Your task to perform on an android device: Install the Yahoo app Image 0: 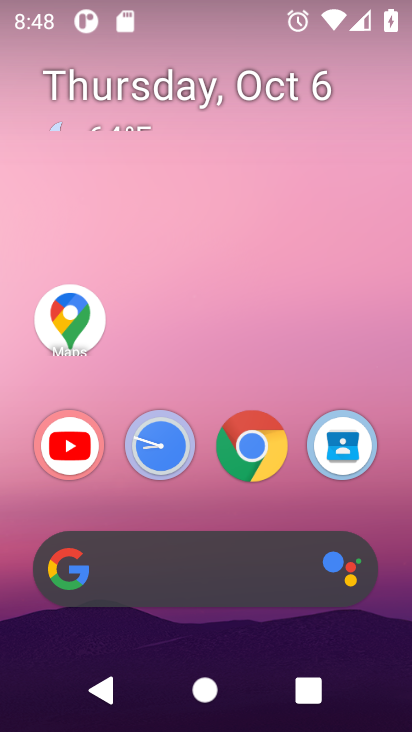
Step 0: drag from (110, 509) to (170, 35)
Your task to perform on an android device: Install the Yahoo app Image 1: 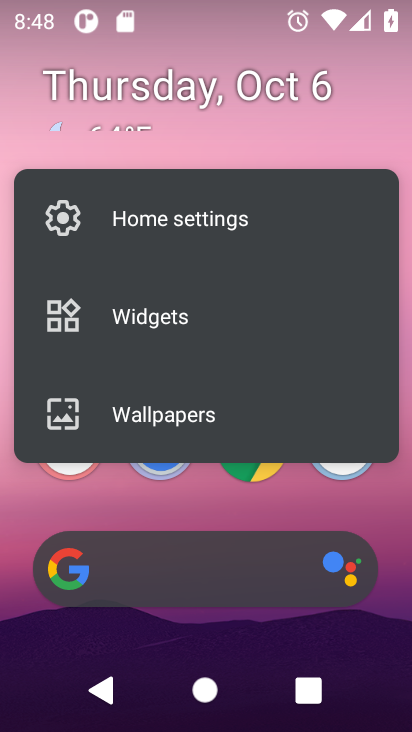
Step 1: click (264, 138)
Your task to perform on an android device: Install the Yahoo app Image 2: 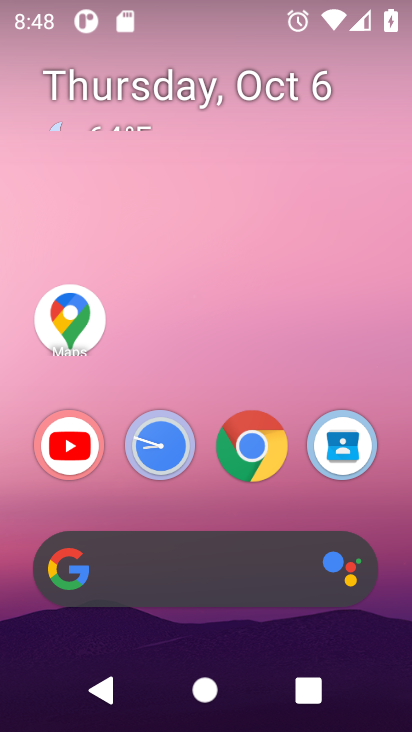
Step 2: drag from (197, 522) to (259, 2)
Your task to perform on an android device: Install the Yahoo app Image 3: 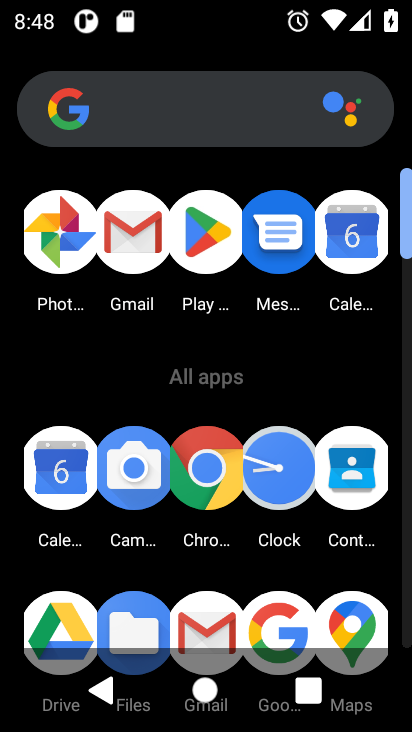
Step 3: click (212, 280)
Your task to perform on an android device: Install the Yahoo app Image 4: 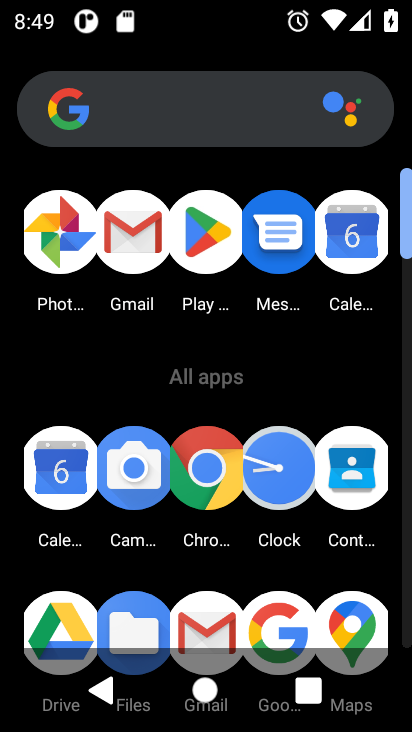
Step 4: click (212, 274)
Your task to perform on an android device: Install the Yahoo app Image 5: 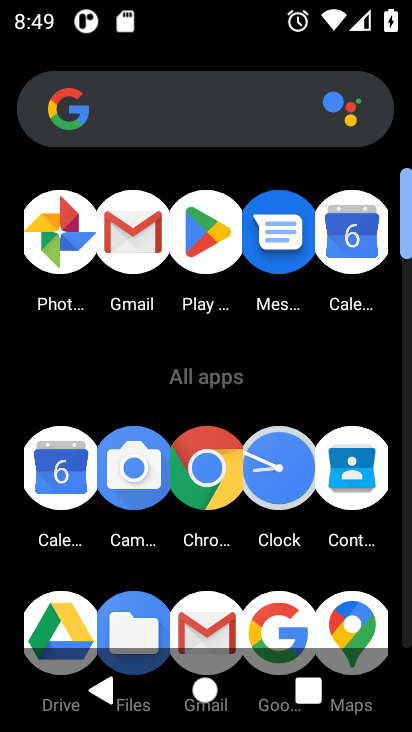
Step 5: click (212, 232)
Your task to perform on an android device: Install the Yahoo app Image 6: 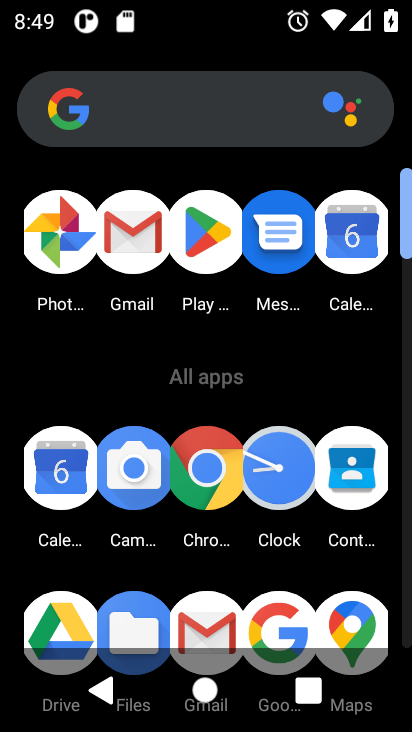
Step 6: click (195, 226)
Your task to perform on an android device: Install the Yahoo app Image 7: 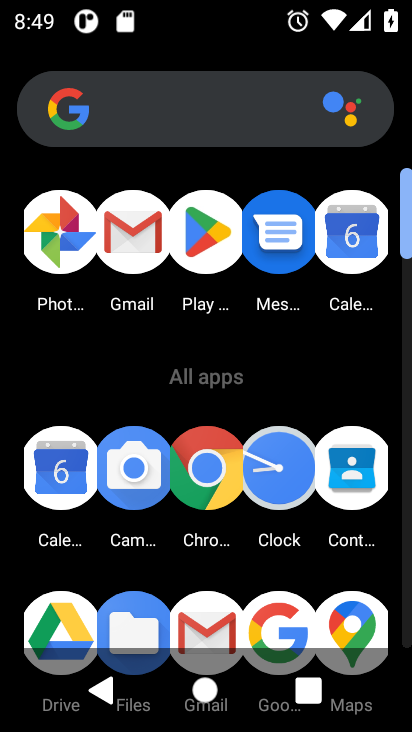
Step 7: click (195, 226)
Your task to perform on an android device: Install the Yahoo app Image 8: 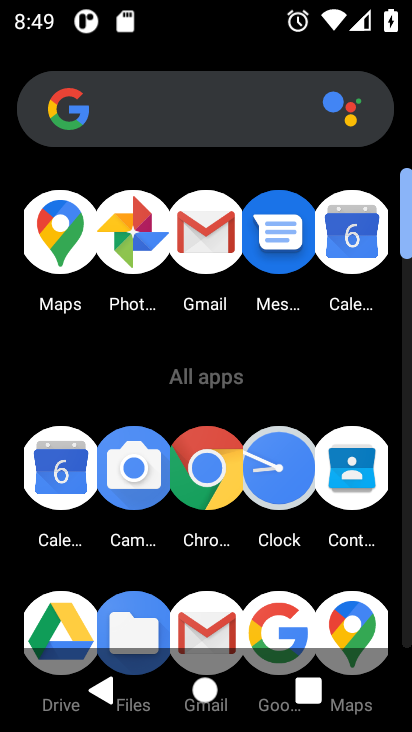
Step 8: task complete